Your task to perform on an android device: change alarm snooze length Image 0: 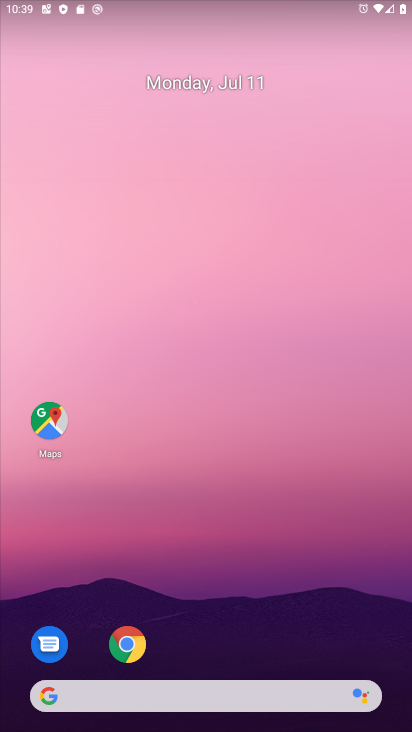
Step 0: press home button
Your task to perform on an android device: change alarm snooze length Image 1: 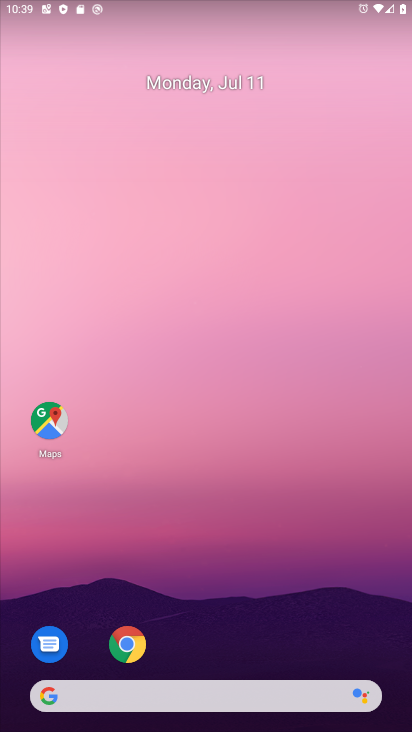
Step 1: drag from (215, 658) to (240, 28)
Your task to perform on an android device: change alarm snooze length Image 2: 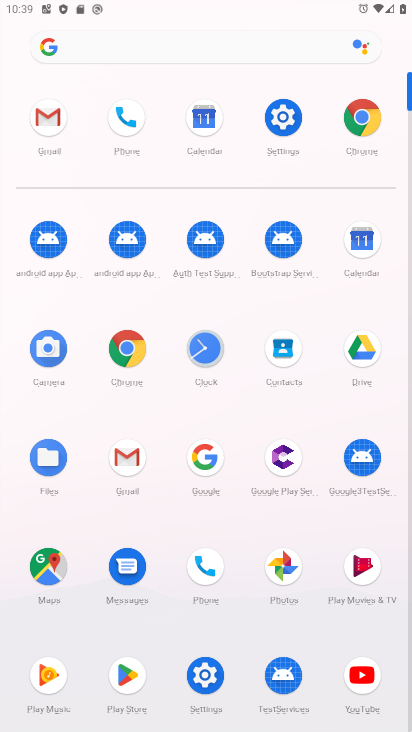
Step 2: click (202, 344)
Your task to perform on an android device: change alarm snooze length Image 3: 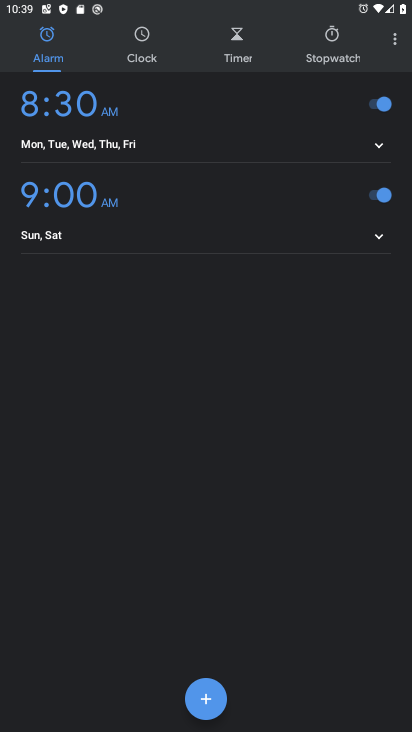
Step 3: click (392, 39)
Your task to perform on an android device: change alarm snooze length Image 4: 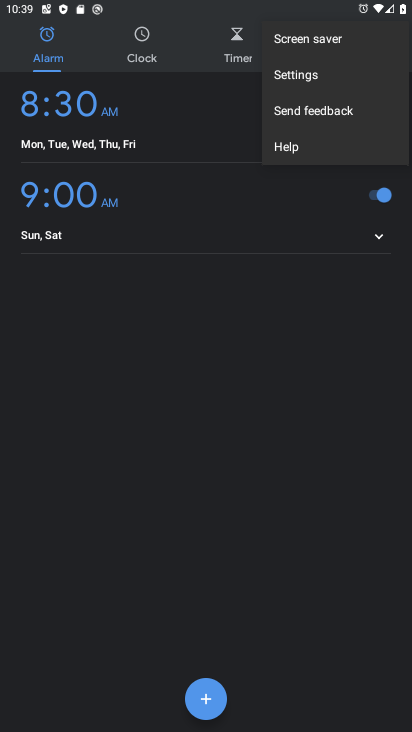
Step 4: click (330, 72)
Your task to perform on an android device: change alarm snooze length Image 5: 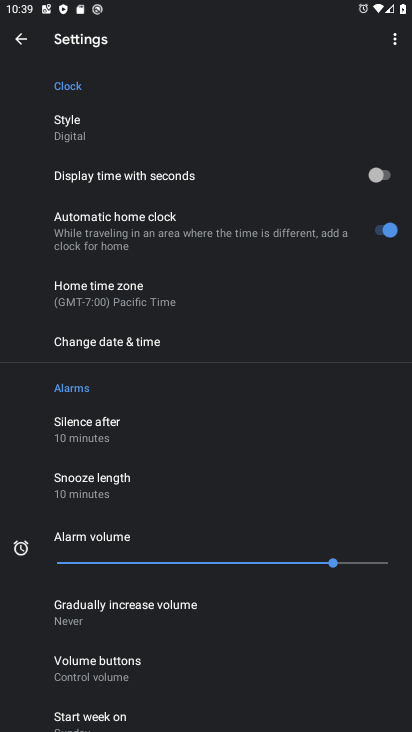
Step 5: click (149, 486)
Your task to perform on an android device: change alarm snooze length Image 6: 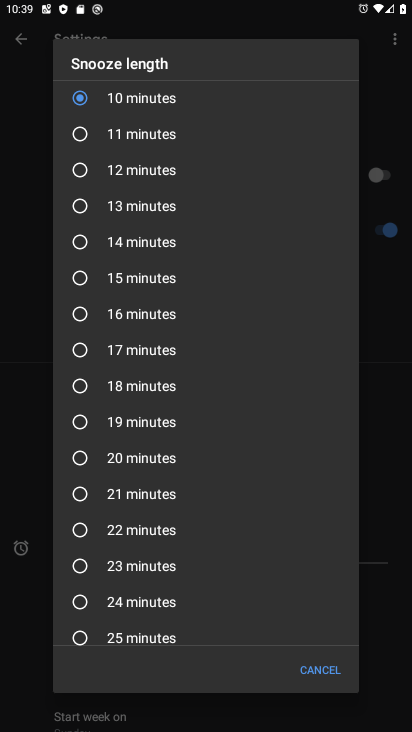
Step 6: click (80, 277)
Your task to perform on an android device: change alarm snooze length Image 7: 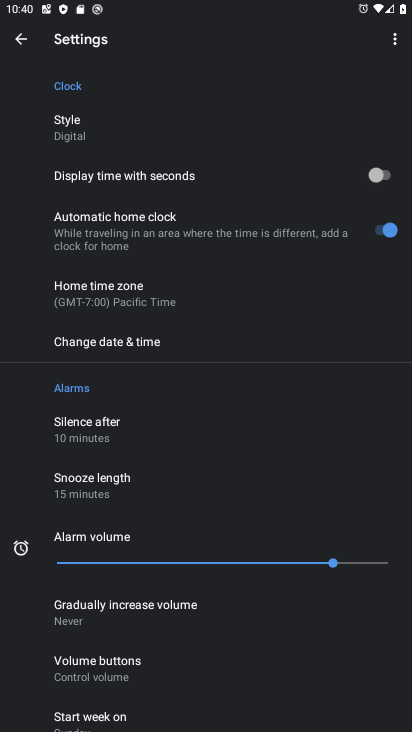
Step 7: task complete